Your task to perform on an android device: check android version Image 0: 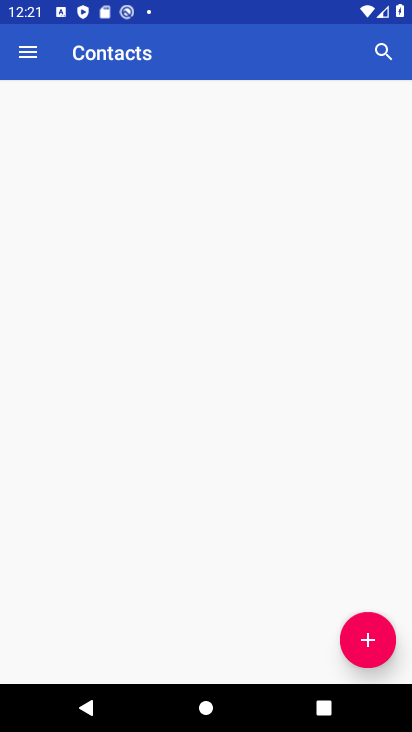
Step 0: press home button
Your task to perform on an android device: check android version Image 1: 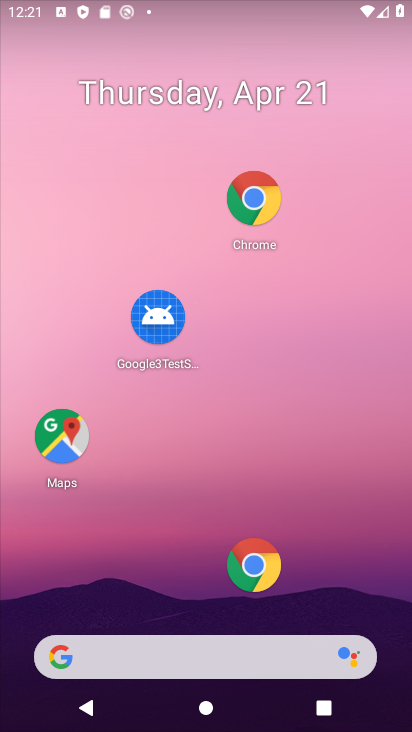
Step 1: drag from (232, 407) to (246, 2)
Your task to perform on an android device: check android version Image 2: 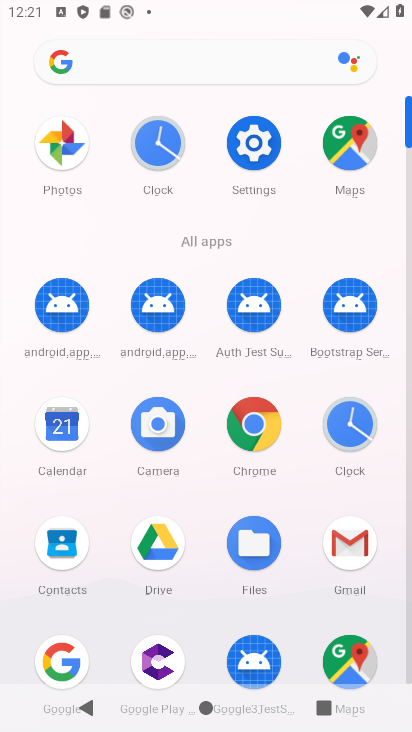
Step 2: click (247, 158)
Your task to perform on an android device: check android version Image 3: 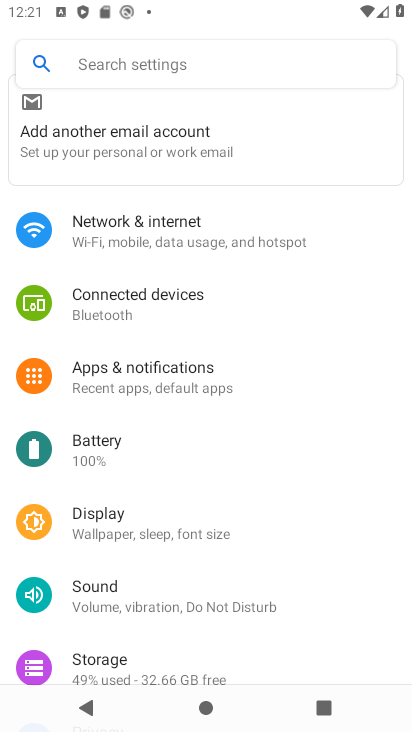
Step 3: drag from (128, 494) to (138, 125)
Your task to perform on an android device: check android version Image 4: 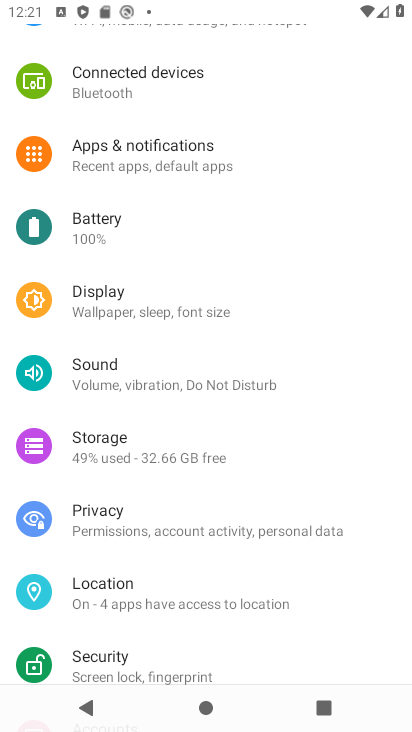
Step 4: drag from (128, 584) to (151, 186)
Your task to perform on an android device: check android version Image 5: 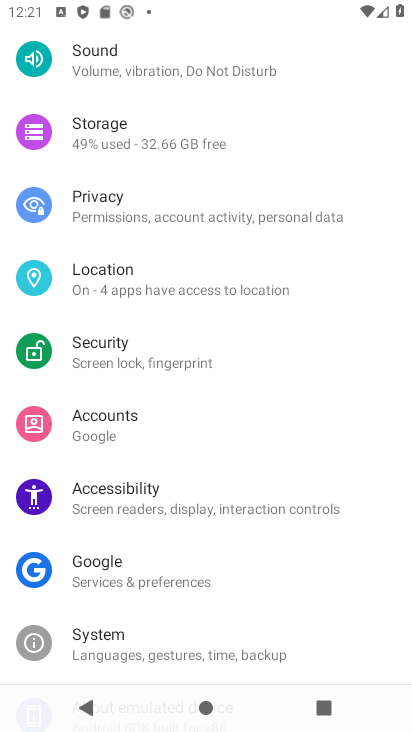
Step 5: drag from (138, 562) to (121, 291)
Your task to perform on an android device: check android version Image 6: 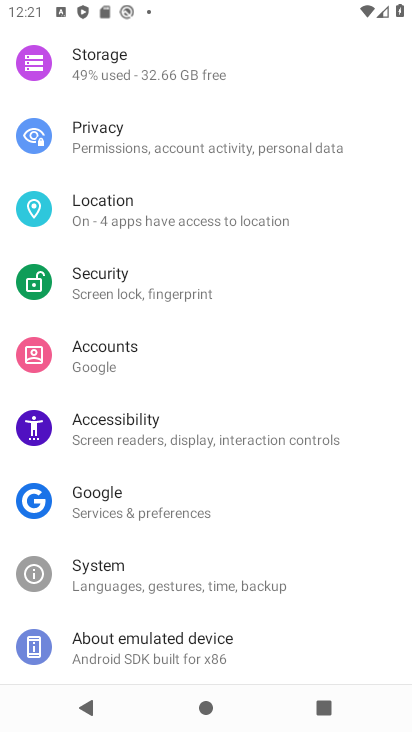
Step 6: click (139, 661)
Your task to perform on an android device: check android version Image 7: 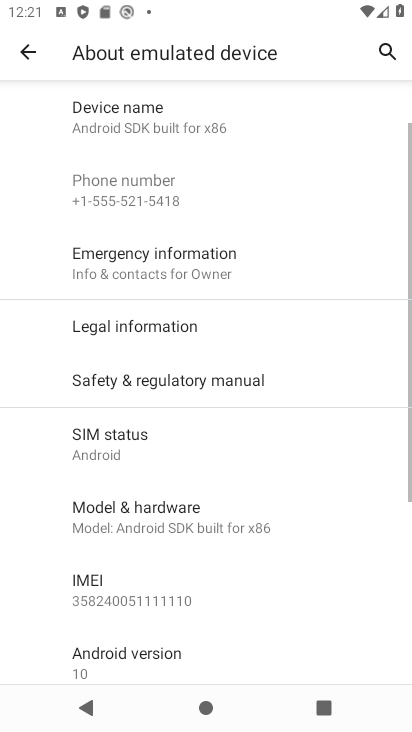
Step 7: click (162, 660)
Your task to perform on an android device: check android version Image 8: 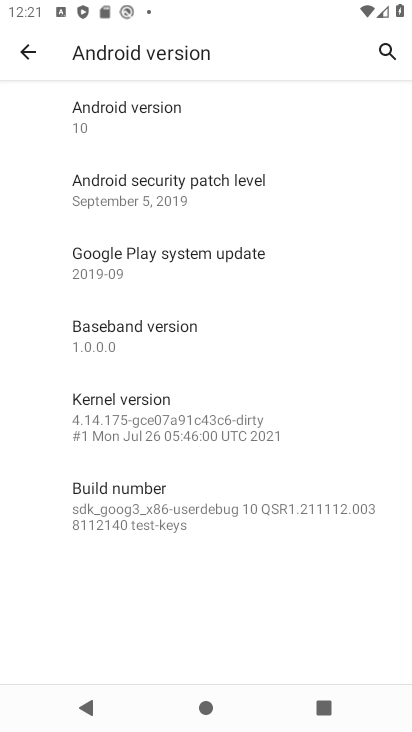
Step 8: click (193, 136)
Your task to perform on an android device: check android version Image 9: 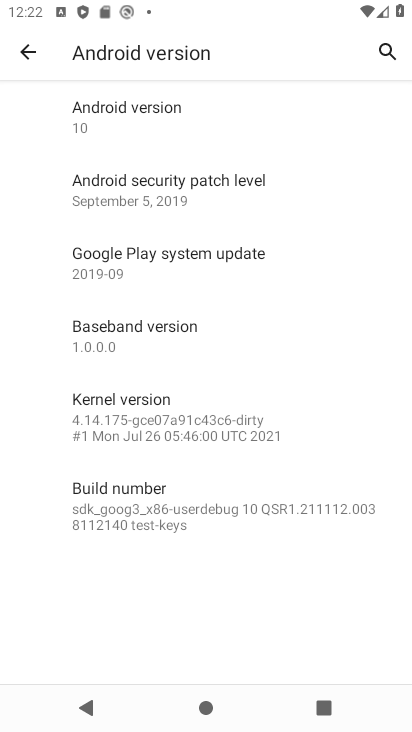
Step 9: task complete